Your task to perform on an android device: Search for Mexican restaurants on Maps Image 0: 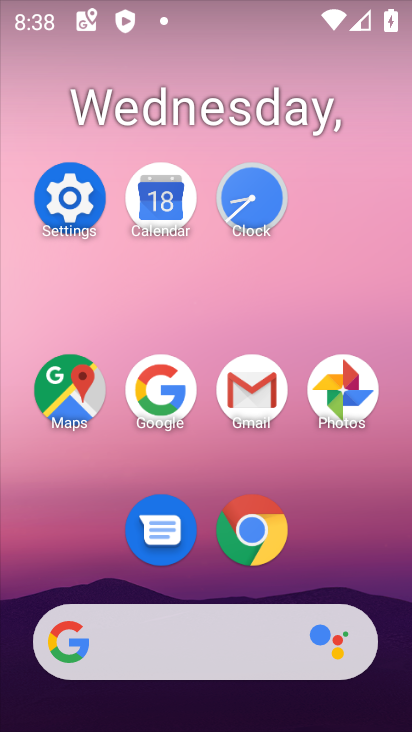
Step 0: click (83, 394)
Your task to perform on an android device: Search for Mexican restaurants on Maps Image 1: 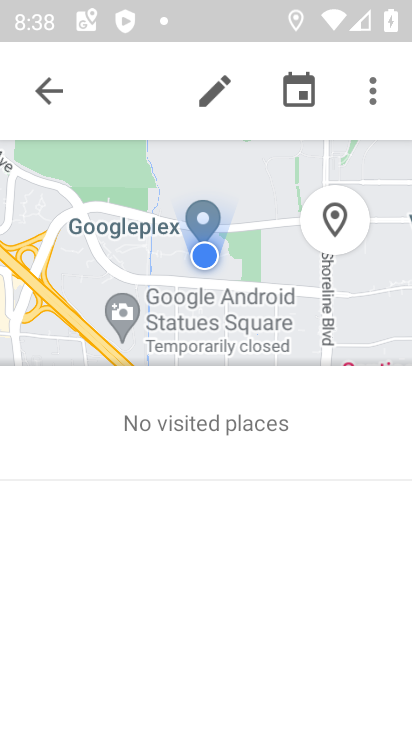
Step 1: click (56, 101)
Your task to perform on an android device: Search for Mexican restaurants on Maps Image 2: 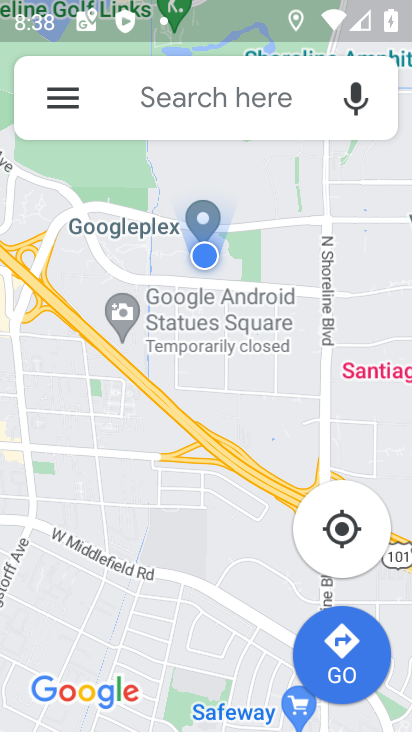
Step 2: click (285, 100)
Your task to perform on an android device: Search for Mexican restaurants on Maps Image 3: 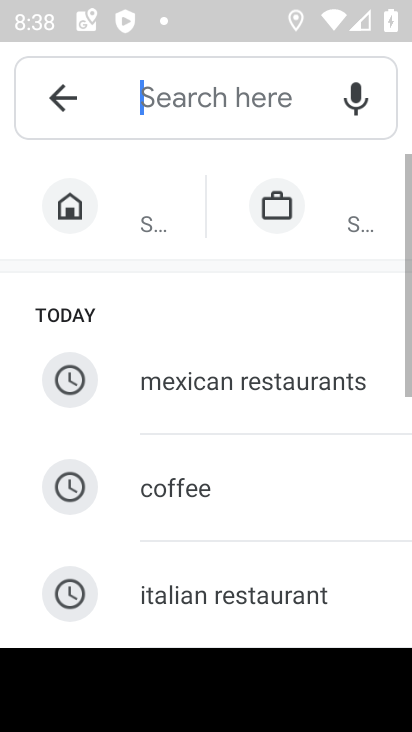
Step 3: click (230, 380)
Your task to perform on an android device: Search for Mexican restaurants on Maps Image 4: 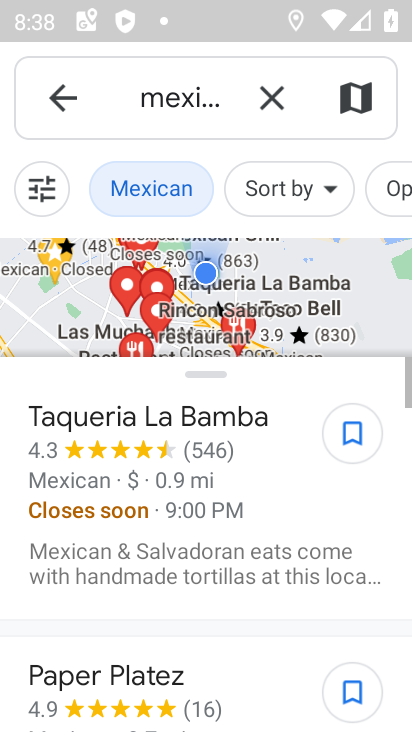
Step 4: task complete